Your task to perform on an android device: turn on location history Image 0: 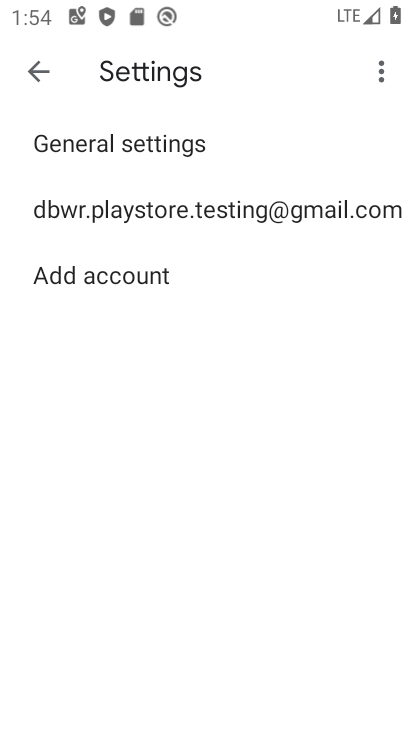
Step 0: press back button
Your task to perform on an android device: turn on location history Image 1: 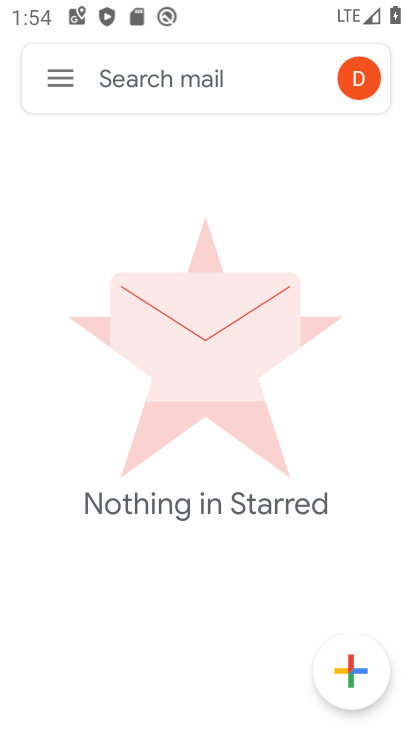
Step 1: press home button
Your task to perform on an android device: turn on location history Image 2: 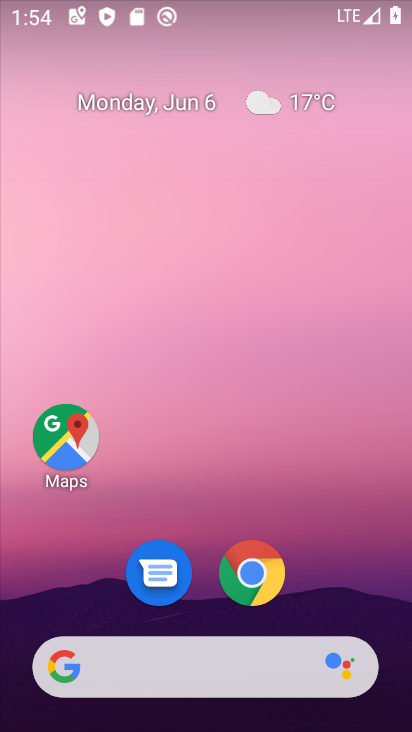
Step 2: drag from (373, 587) to (357, 190)
Your task to perform on an android device: turn on location history Image 3: 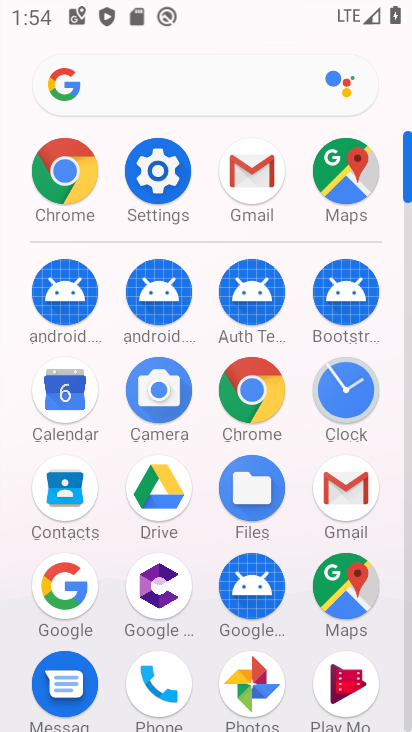
Step 3: click (166, 181)
Your task to perform on an android device: turn on location history Image 4: 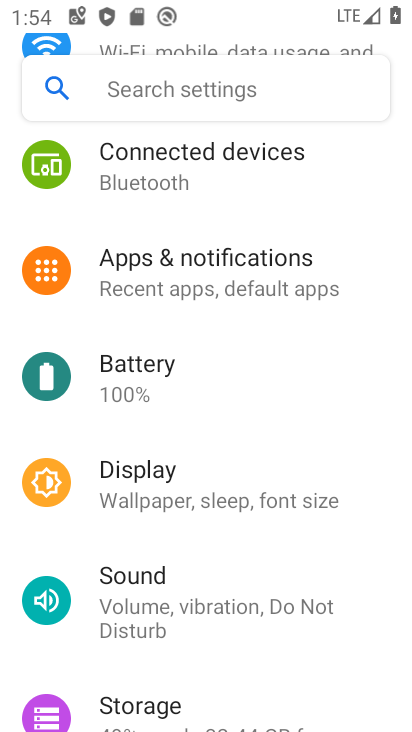
Step 4: drag from (361, 198) to (361, 319)
Your task to perform on an android device: turn on location history Image 5: 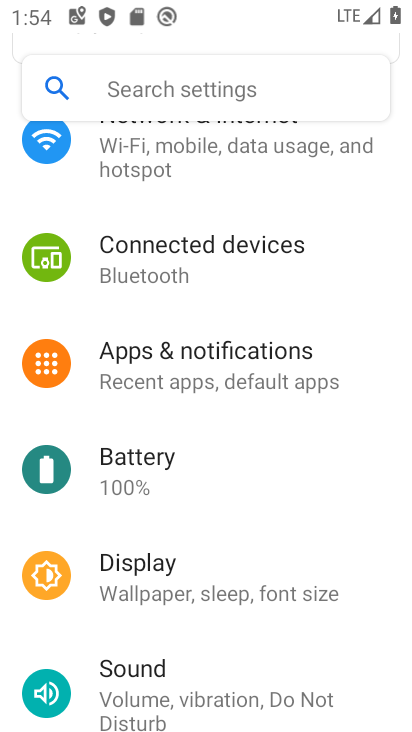
Step 5: drag from (353, 189) to (353, 381)
Your task to perform on an android device: turn on location history Image 6: 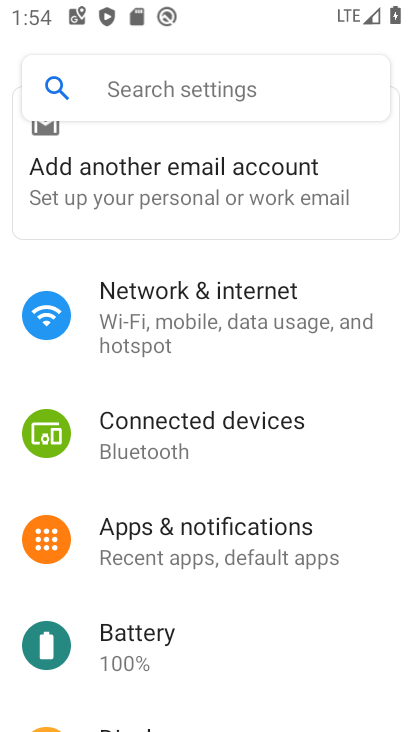
Step 6: drag from (358, 426) to (359, 312)
Your task to perform on an android device: turn on location history Image 7: 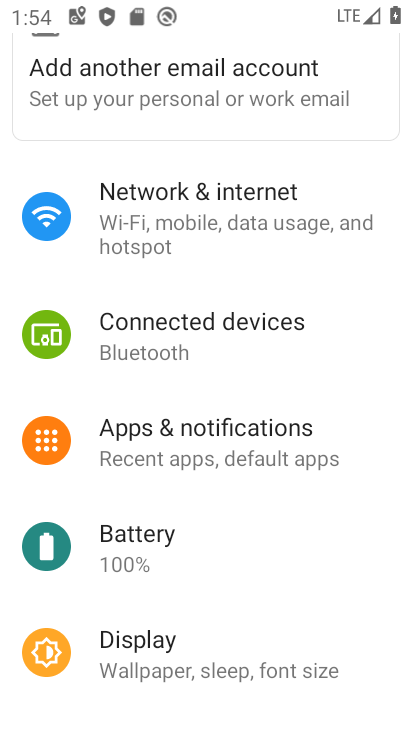
Step 7: drag from (363, 454) to (363, 354)
Your task to perform on an android device: turn on location history Image 8: 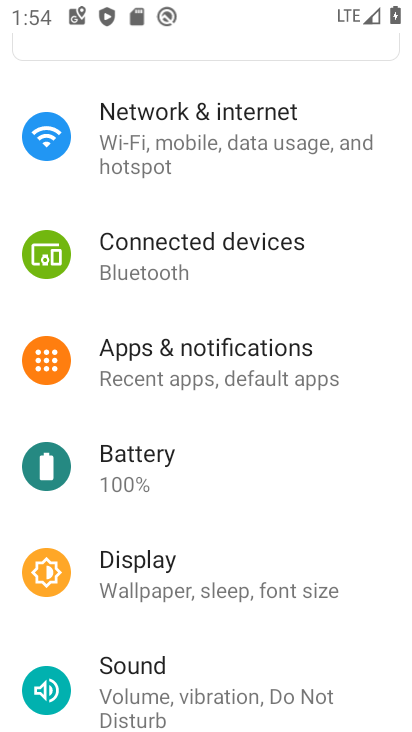
Step 8: drag from (355, 473) to (357, 384)
Your task to perform on an android device: turn on location history Image 9: 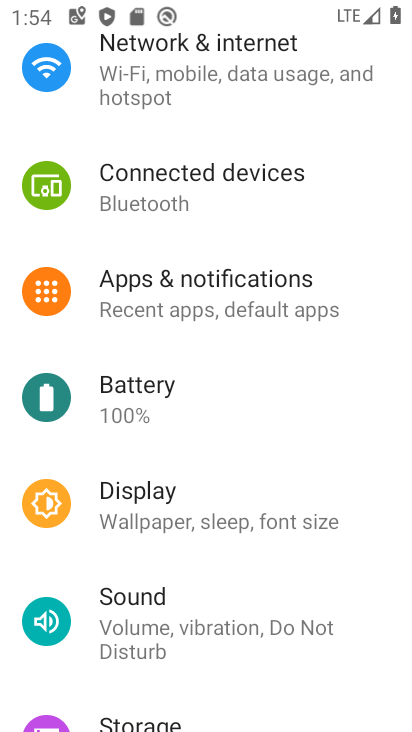
Step 9: drag from (354, 489) to (356, 396)
Your task to perform on an android device: turn on location history Image 10: 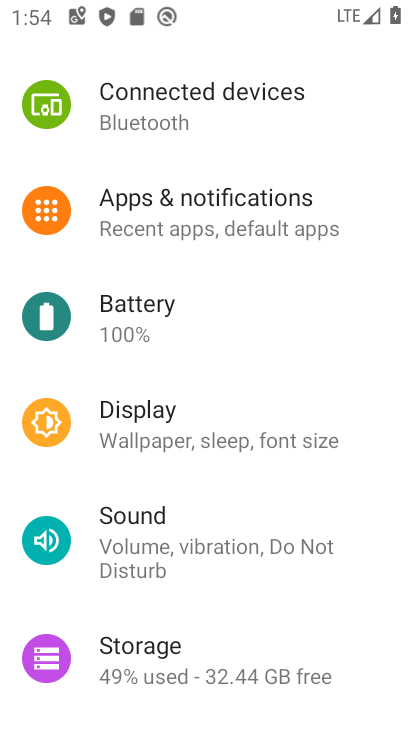
Step 10: drag from (351, 496) to (362, 406)
Your task to perform on an android device: turn on location history Image 11: 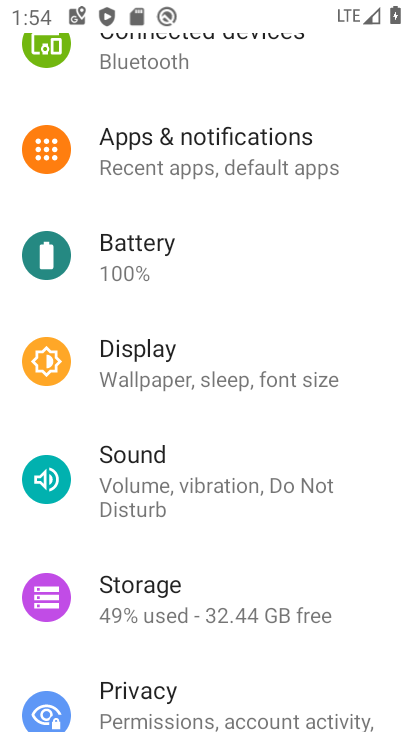
Step 11: drag from (359, 516) to (365, 414)
Your task to perform on an android device: turn on location history Image 12: 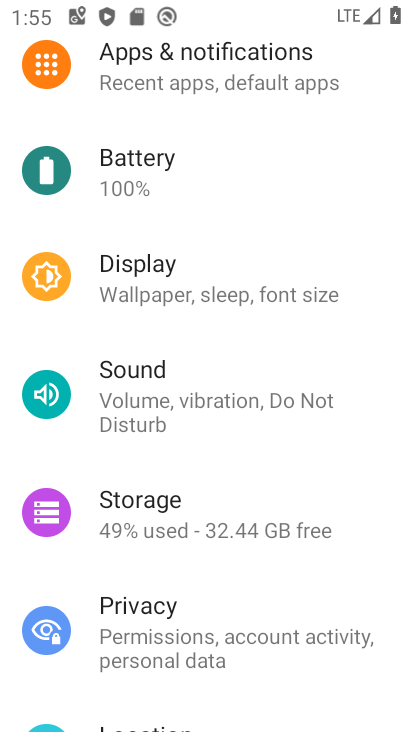
Step 12: drag from (356, 539) to (365, 446)
Your task to perform on an android device: turn on location history Image 13: 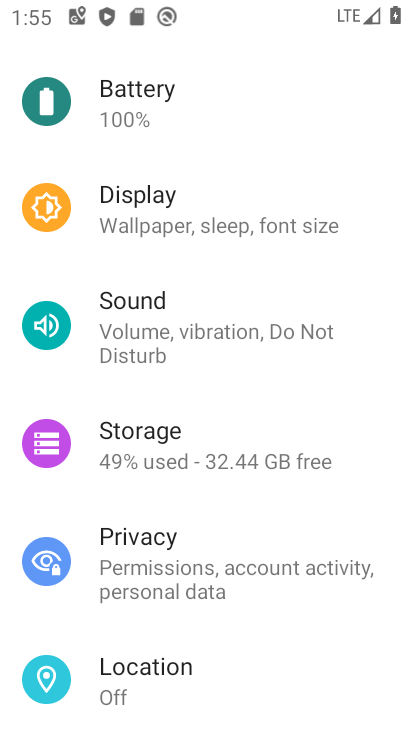
Step 13: drag from (345, 599) to (366, 468)
Your task to perform on an android device: turn on location history Image 14: 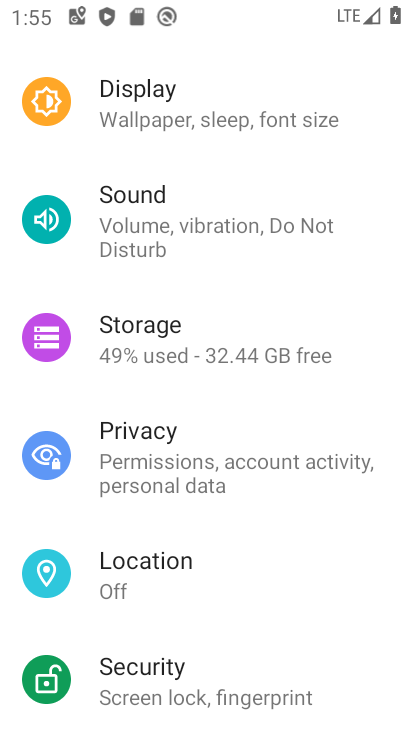
Step 14: drag from (363, 564) to (369, 459)
Your task to perform on an android device: turn on location history Image 15: 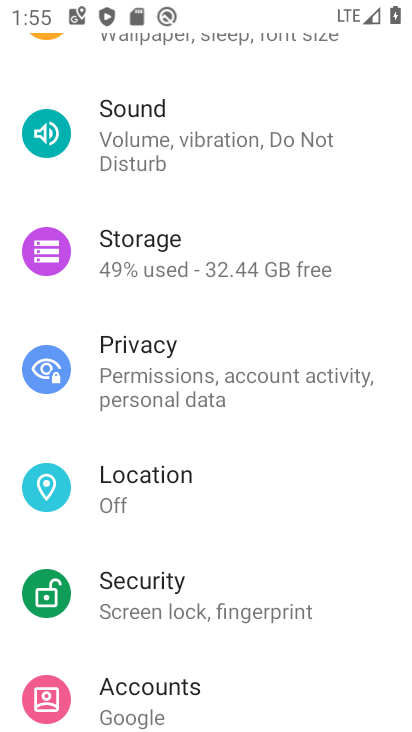
Step 15: click (308, 512)
Your task to perform on an android device: turn on location history Image 16: 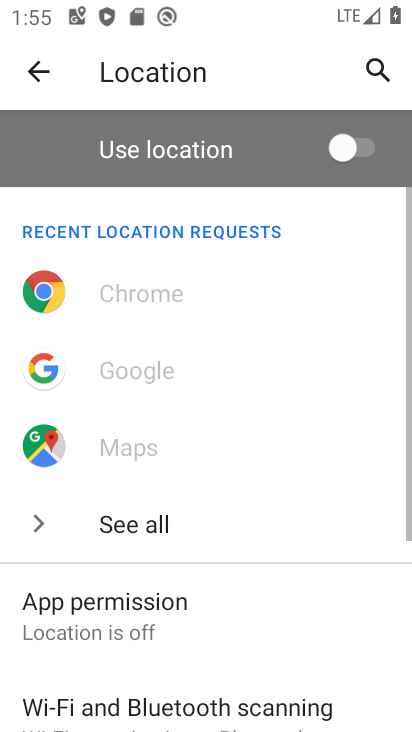
Step 16: drag from (338, 535) to (337, 395)
Your task to perform on an android device: turn on location history Image 17: 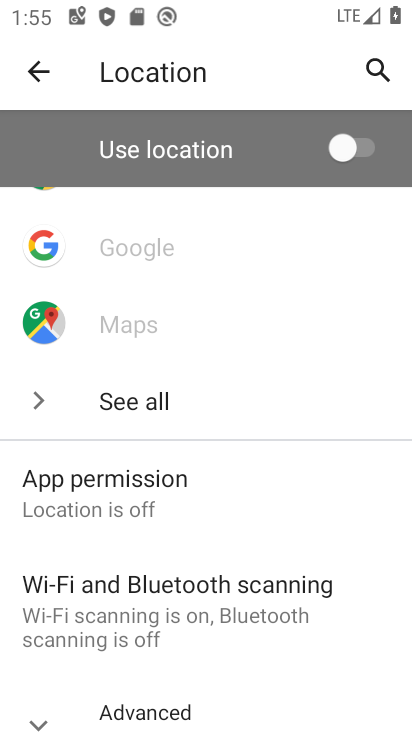
Step 17: drag from (340, 592) to (347, 419)
Your task to perform on an android device: turn on location history Image 18: 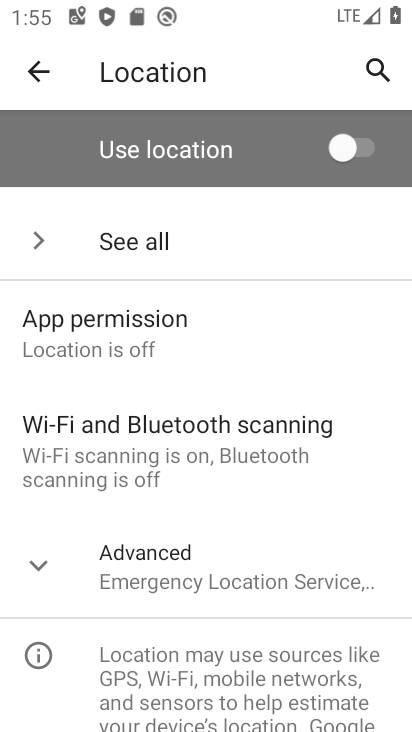
Step 18: click (291, 583)
Your task to perform on an android device: turn on location history Image 19: 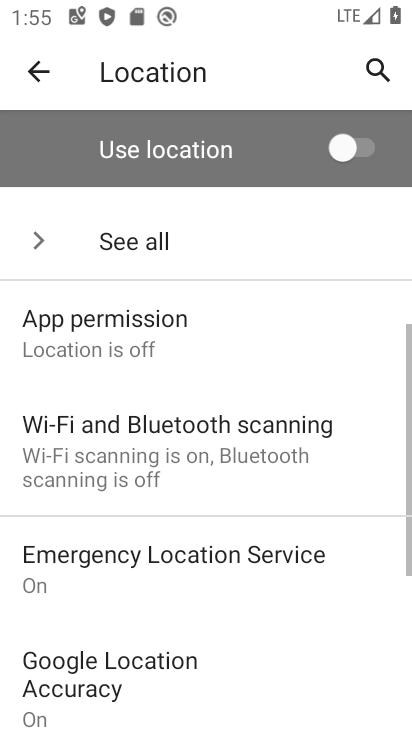
Step 19: drag from (298, 607) to (317, 472)
Your task to perform on an android device: turn on location history Image 20: 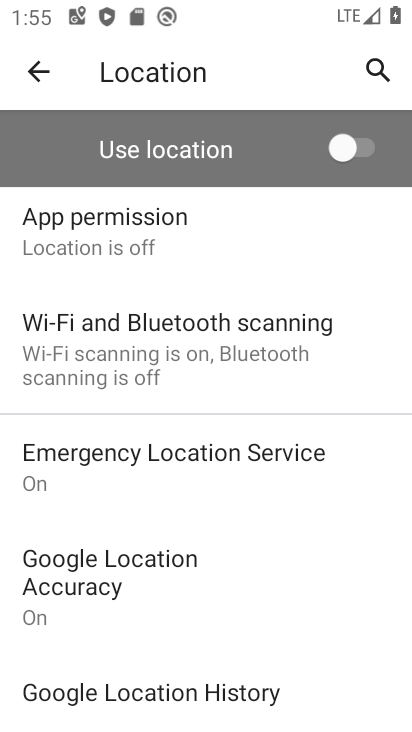
Step 20: drag from (352, 659) to (340, 502)
Your task to perform on an android device: turn on location history Image 21: 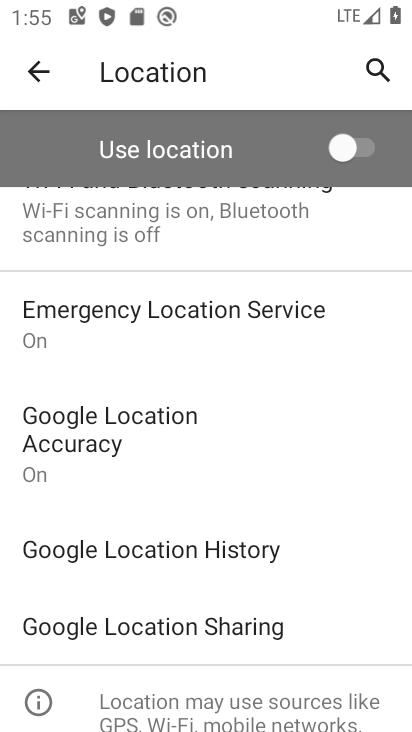
Step 21: click (265, 561)
Your task to perform on an android device: turn on location history Image 22: 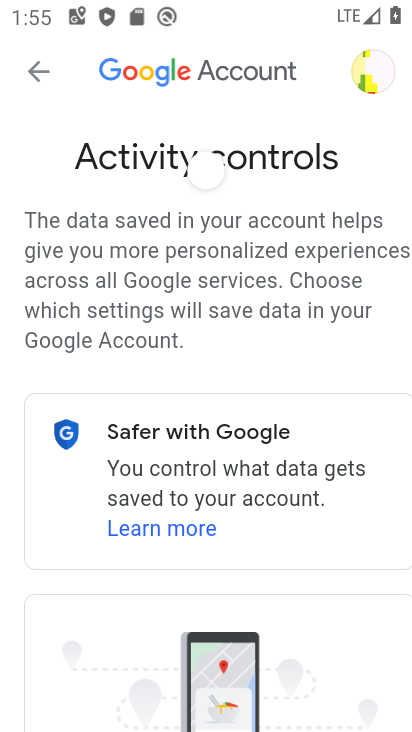
Step 22: task complete